Your task to perform on an android device: turn notification dots off Image 0: 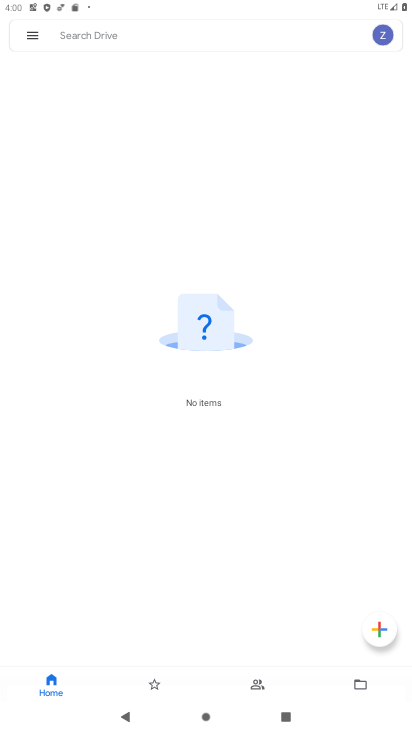
Step 0: press home button
Your task to perform on an android device: turn notification dots off Image 1: 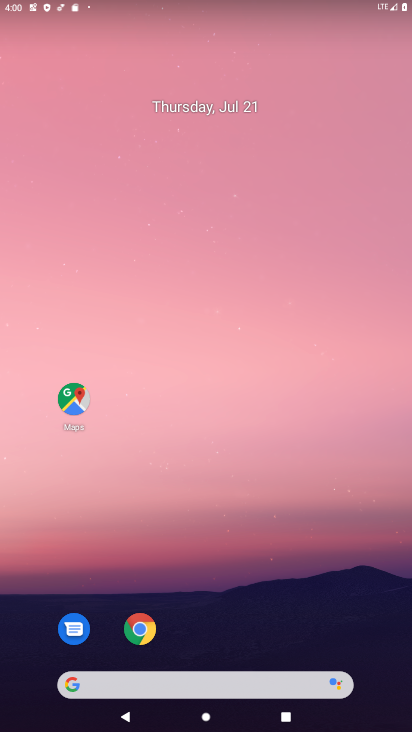
Step 1: drag from (368, 595) to (270, 108)
Your task to perform on an android device: turn notification dots off Image 2: 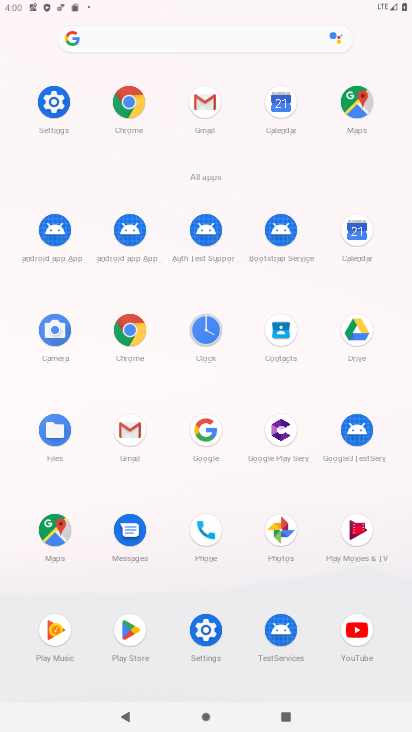
Step 2: click (54, 112)
Your task to perform on an android device: turn notification dots off Image 3: 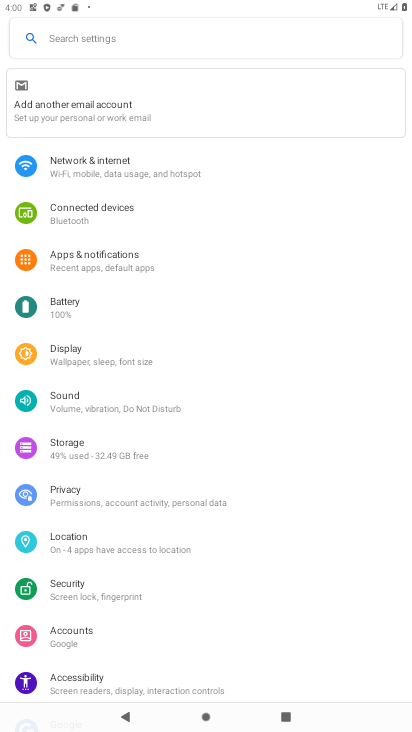
Step 3: click (156, 253)
Your task to perform on an android device: turn notification dots off Image 4: 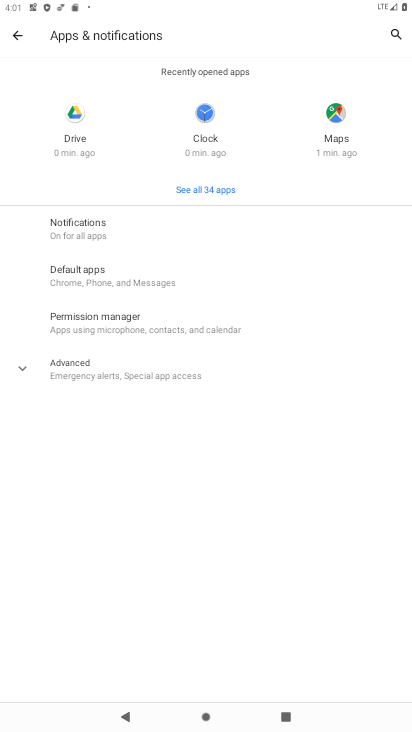
Step 4: click (156, 241)
Your task to perform on an android device: turn notification dots off Image 5: 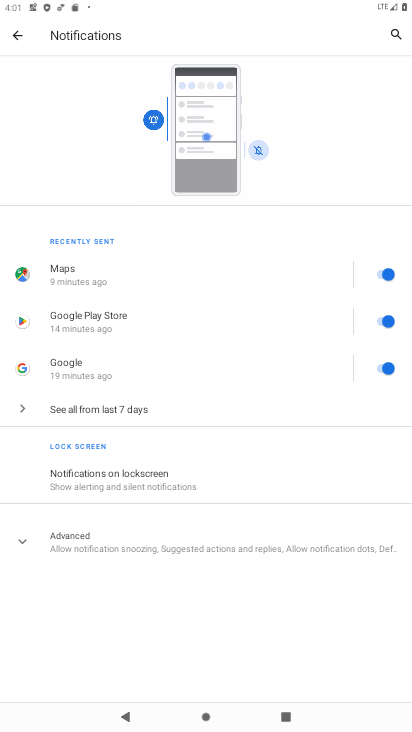
Step 5: click (177, 545)
Your task to perform on an android device: turn notification dots off Image 6: 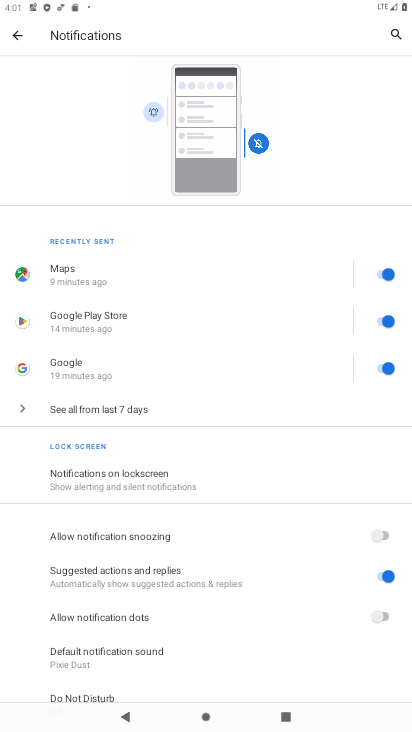
Step 6: task complete